Your task to perform on an android device: Search for Mexican restaurants on Maps Image 0: 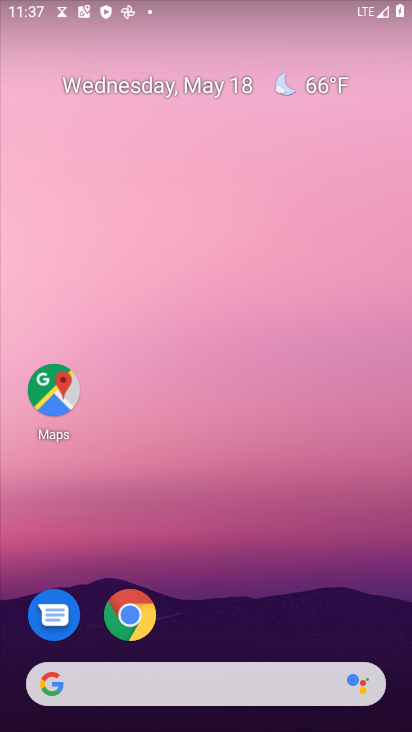
Step 0: drag from (239, 512) to (233, 16)
Your task to perform on an android device: Search for Mexican restaurants on Maps Image 1: 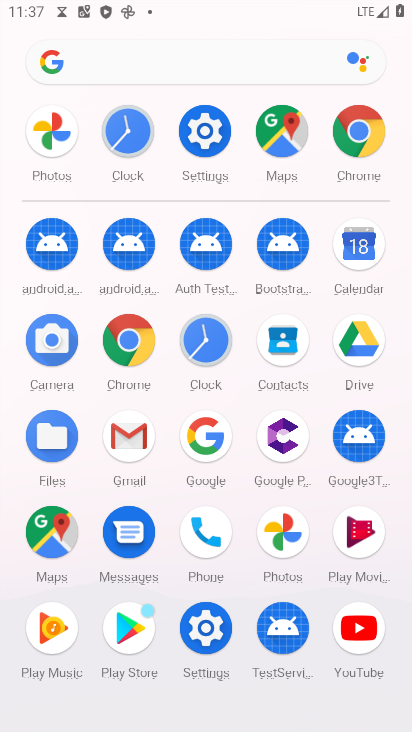
Step 1: drag from (8, 557) to (18, 244)
Your task to perform on an android device: Search for Mexican restaurants on Maps Image 2: 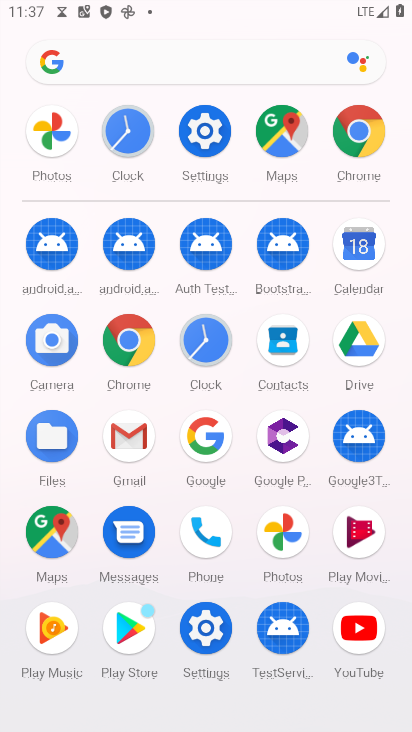
Step 2: click (49, 528)
Your task to perform on an android device: Search for Mexican restaurants on Maps Image 3: 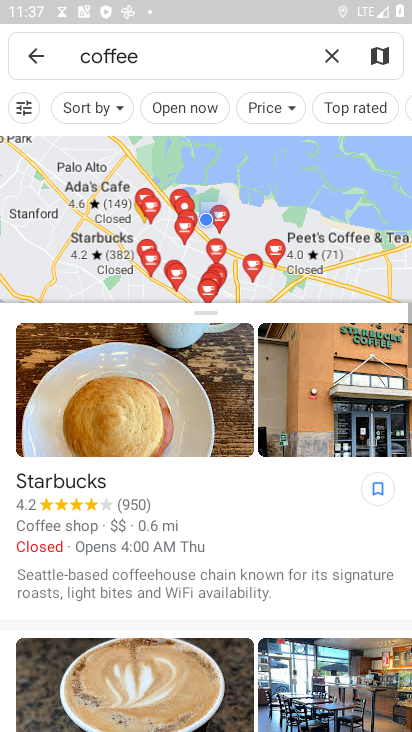
Step 3: click (334, 51)
Your task to perform on an android device: Search for Mexican restaurants on Maps Image 4: 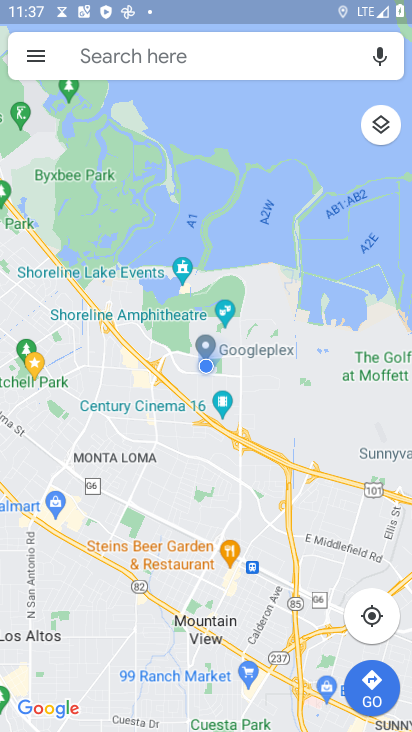
Step 4: click (234, 61)
Your task to perform on an android device: Search for Mexican restaurants on Maps Image 5: 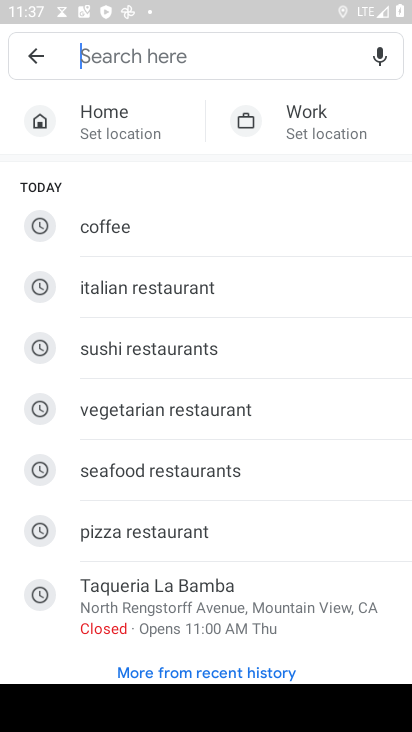
Step 5: drag from (220, 484) to (220, 239)
Your task to perform on an android device: Search for Mexican restaurants on Maps Image 6: 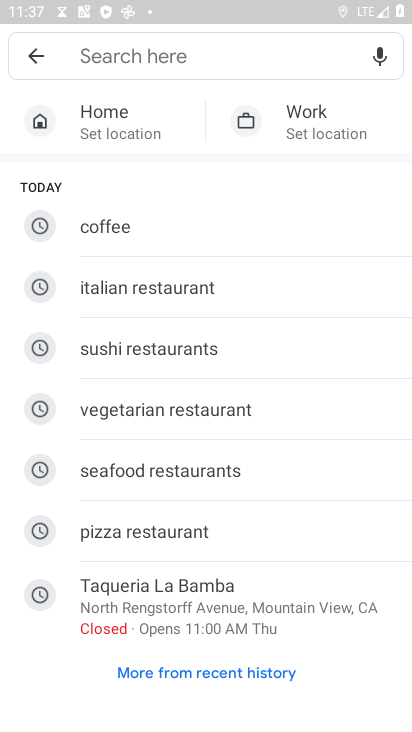
Step 6: click (190, 50)
Your task to perform on an android device: Search for Mexican restaurants on Maps Image 7: 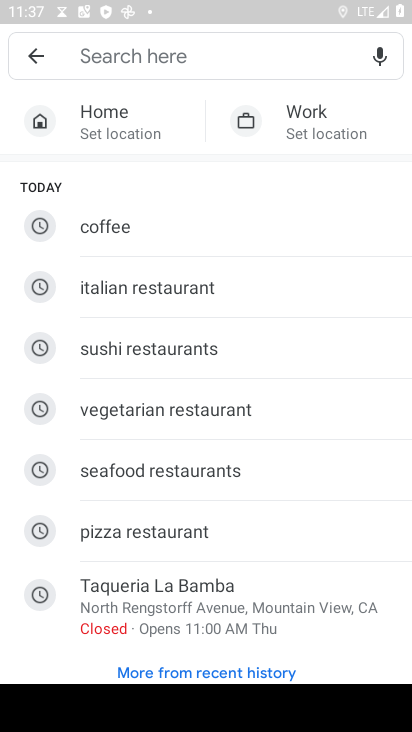
Step 7: type "Mexican restaurants "
Your task to perform on an android device: Search for Mexican restaurants on Maps Image 8: 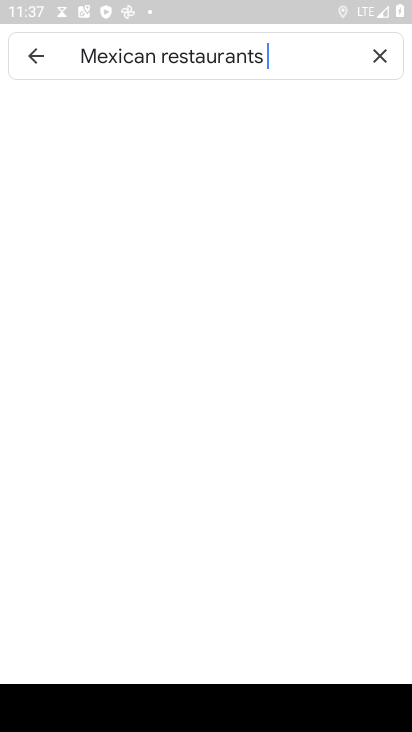
Step 8: type ""
Your task to perform on an android device: Search for Mexican restaurants on Maps Image 9: 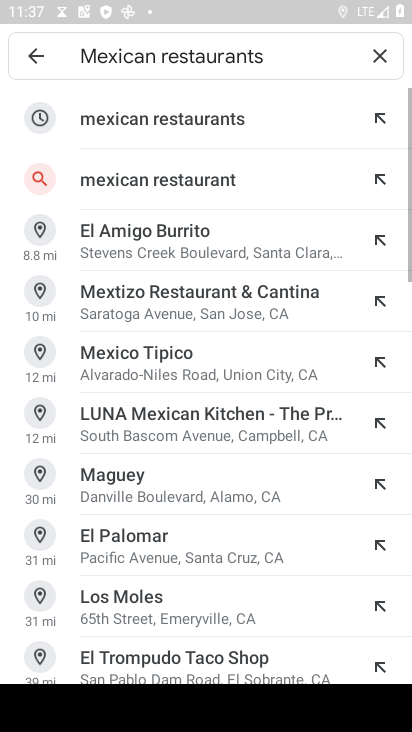
Step 9: click (237, 115)
Your task to perform on an android device: Search for Mexican restaurants on Maps Image 10: 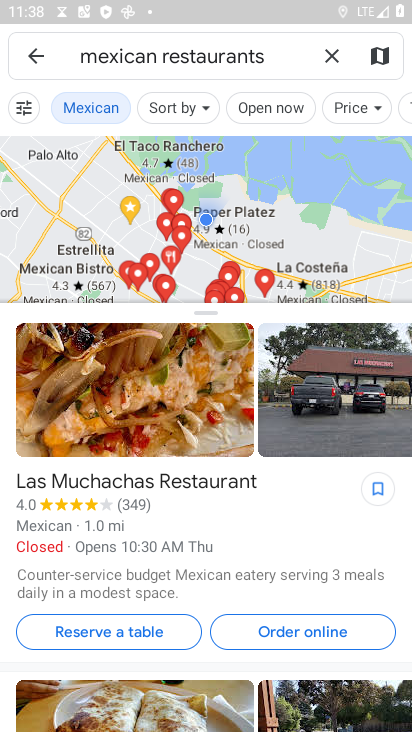
Step 10: task complete